Your task to perform on an android device: change the clock style Image 0: 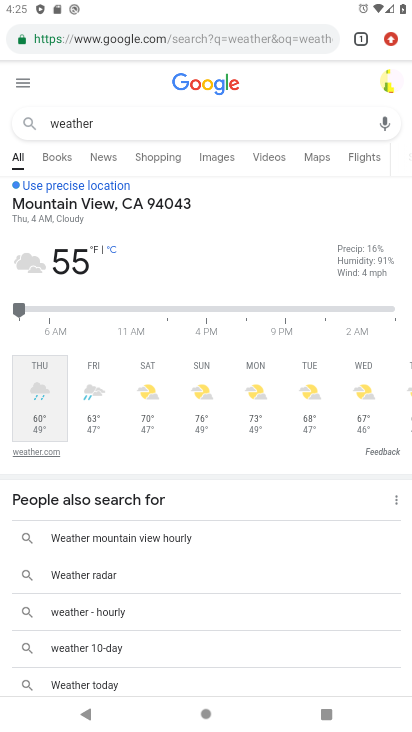
Step 0: click (206, 719)
Your task to perform on an android device: change the clock style Image 1: 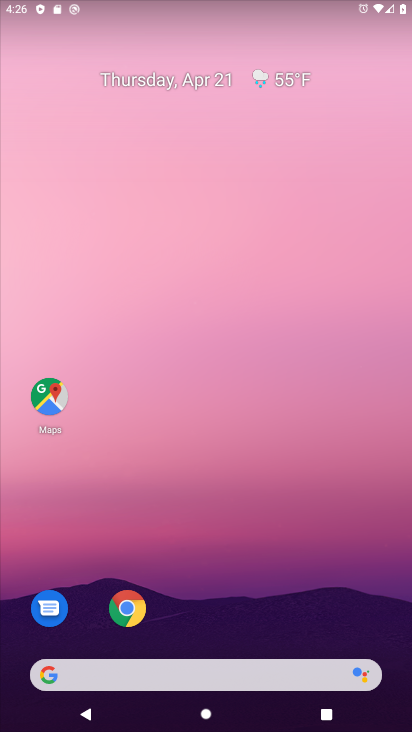
Step 1: drag from (215, 563) to (274, 71)
Your task to perform on an android device: change the clock style Image 2: 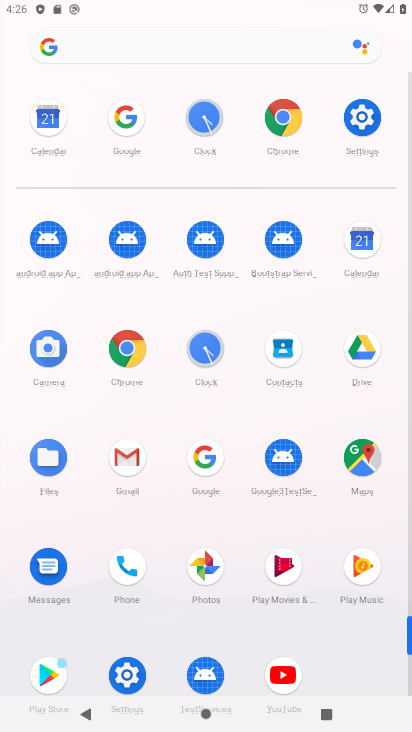
Step 2: click (208, 354)
Your task to perform on an android device: change the clock style Image 3: 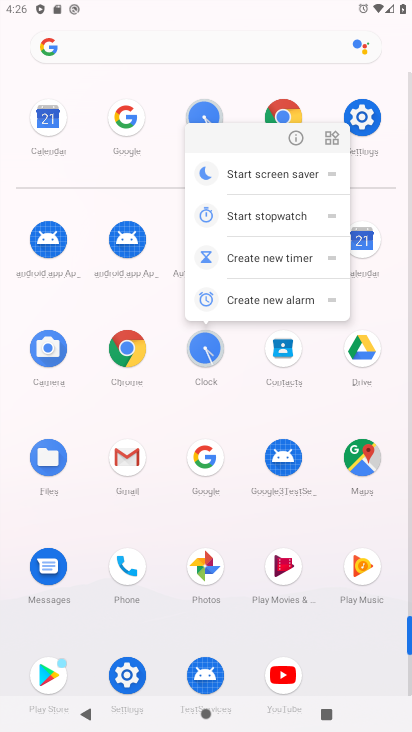
Step 3: click (279, 38)
Your task to perform on an android device: change the clock style Image 4: 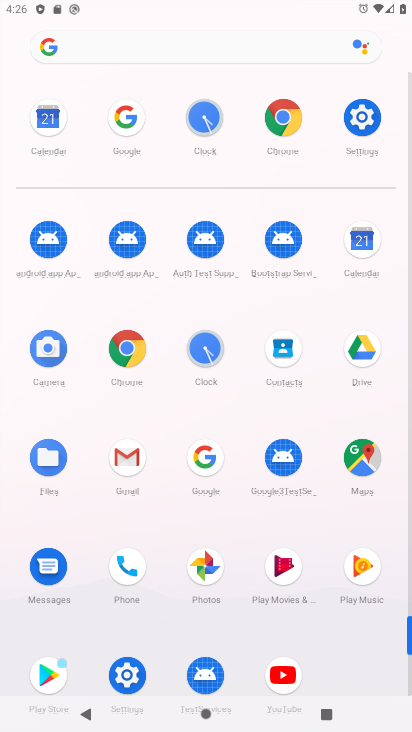
Step 4: click (209, 355)
Your task to perform on an android device: change the clock style Image 5: 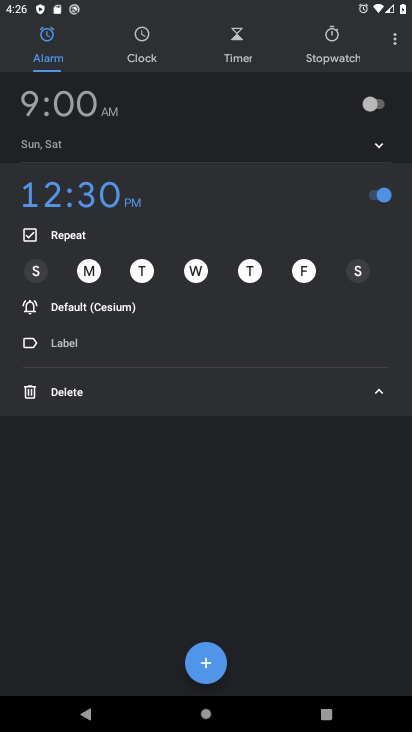
Step 5: click (396, 48)
Your task to perform on an android device: change the clock style Image 6: 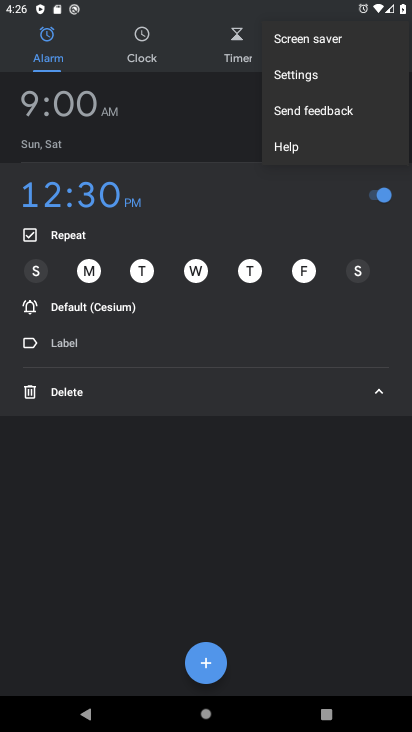
Step 6: click (288, 75)
Your task to perform on an android device: change the clock style Image 7: 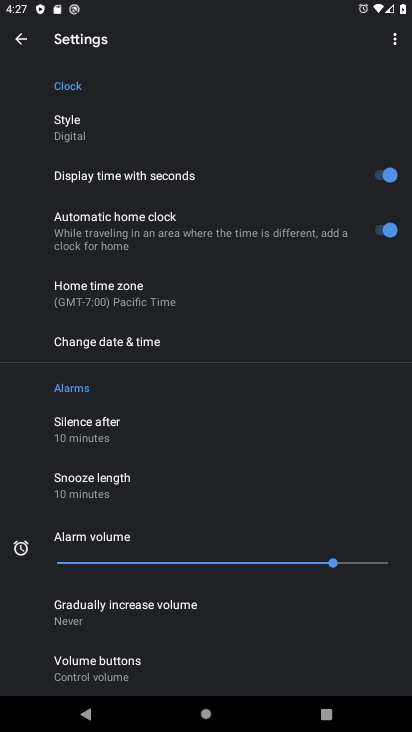
Step 7: click (133, 149)
Your task to perform on an android device: change the clock style Image 8: 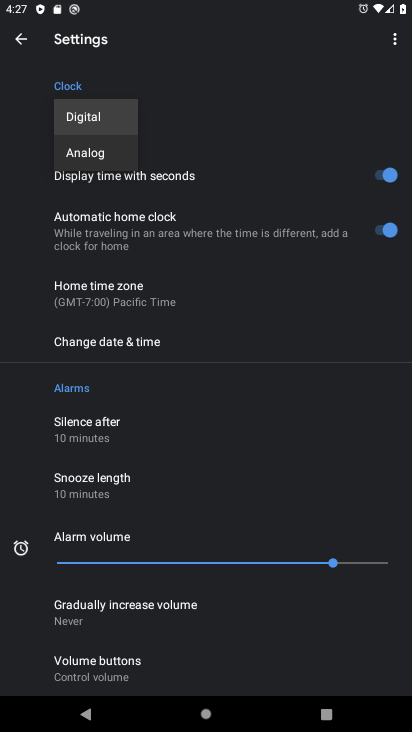
Step 8: click (120, 158)
Your task to perform on an android device: change the clock style Image 9: 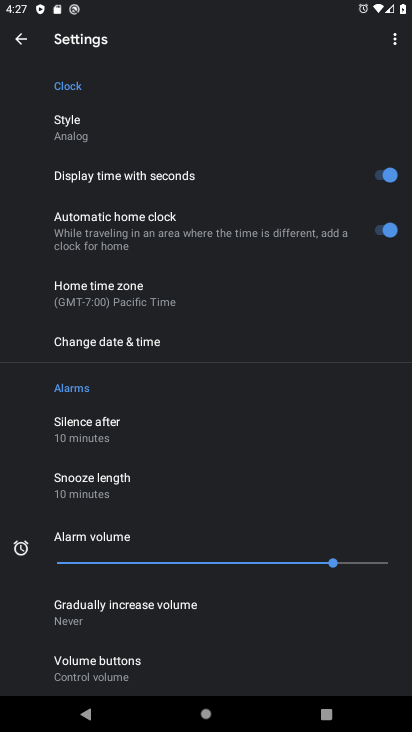
Step 9: task complete